Your task to perform on an android device: open app "Spotify" Image 0: 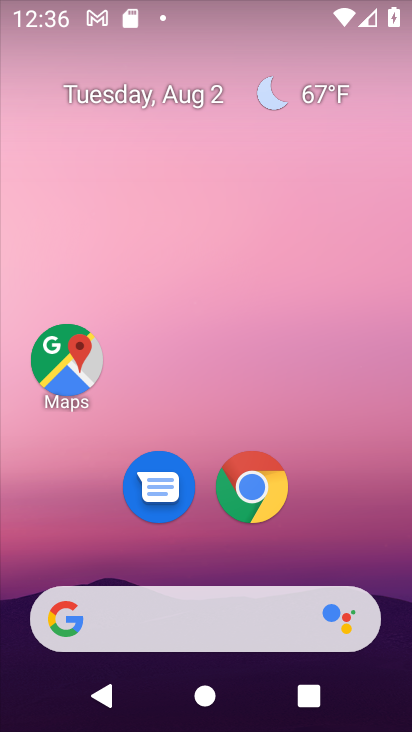
Step 0: drag from (266, 588) to (272, 175)
Your task to perform on an android device: open app "Spotify" Image 1: 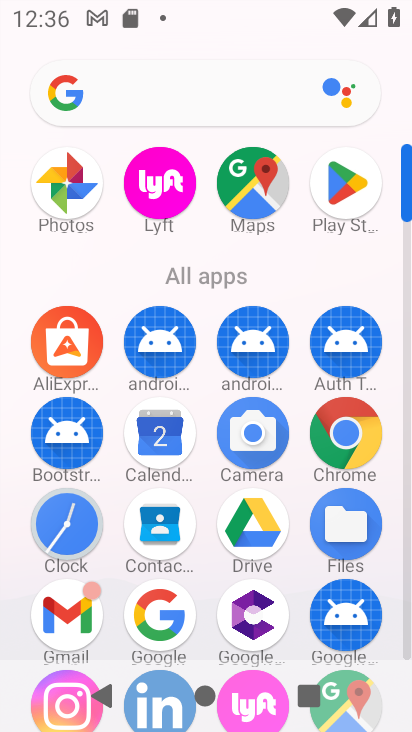
Step 1: click (357, 183)
Your task to perform on an android device: open app "Spotify" Image 2: 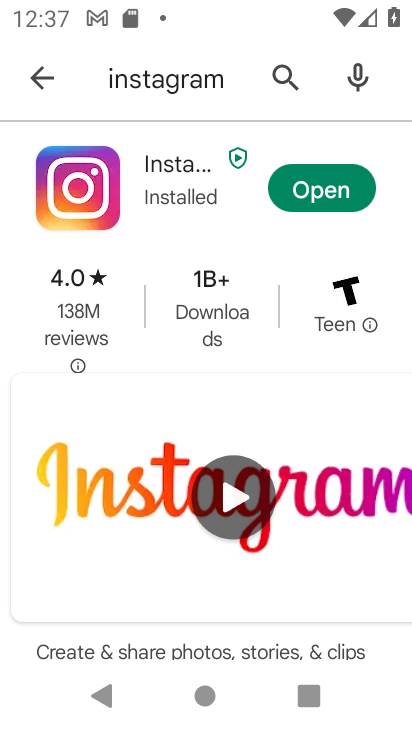
Step 2: click (47, 72)
Your task to perform on an android device: open app "Spotify" Image 3: 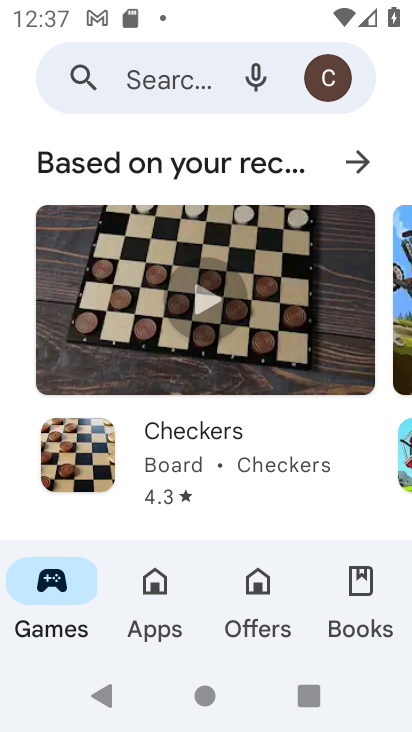
Step 3: click (72, 71)
Your task to perform on an android device: open app "Spotify" Image 4: 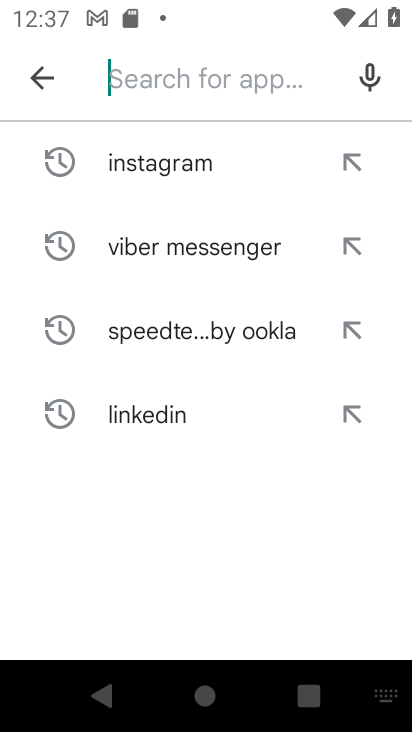
Step 4: type "Spotify"
Your task to perform on an android device: open app "Spotify" Image 5: 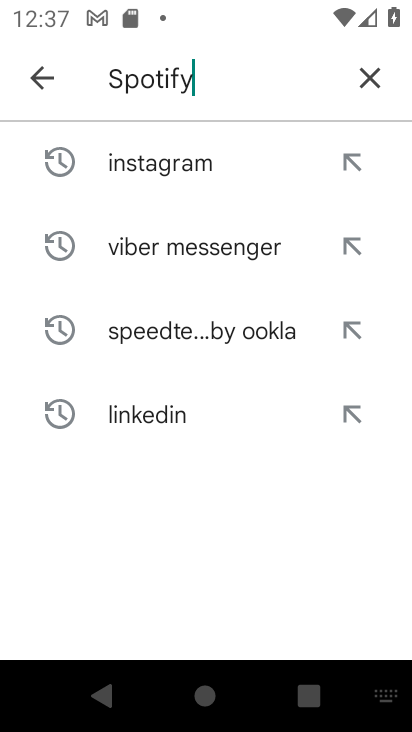
Step 5: type ""
Your task to perform on an android device: open app "Spotify" Image 6: 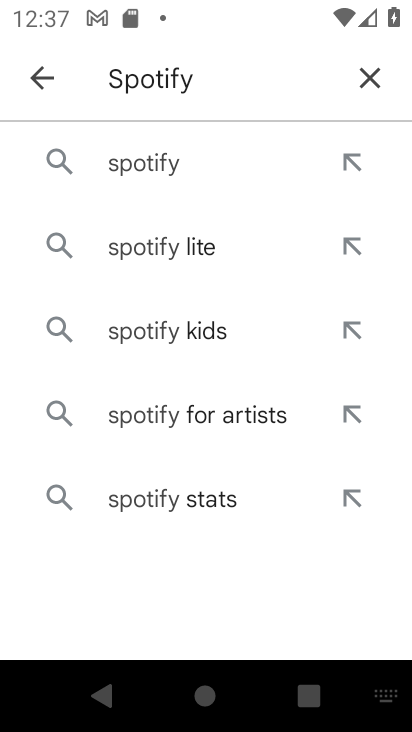
Step 6: click (197, 150)
Your task to perform on an android device: open app "Spotify" Image 7: 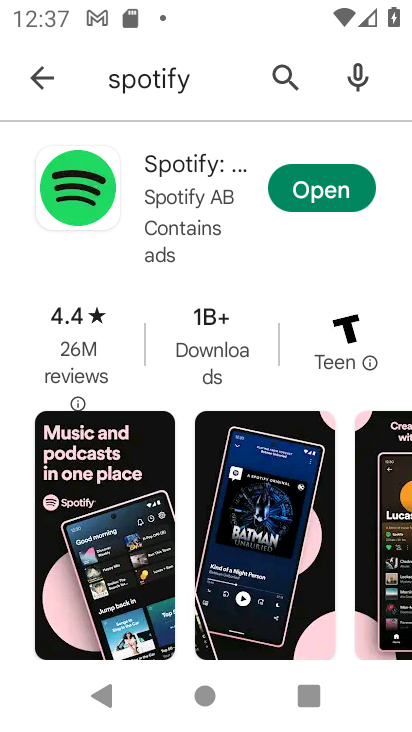
Step 7: click (316, 181)
Your task to perform on an android device: open app "Spotify" Image 8: 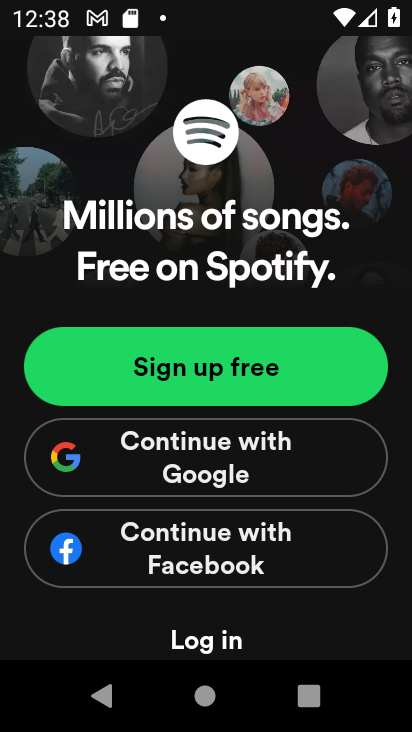
Step 8: task complete